Your task to perform on an android device: Show me recent news Image 0: 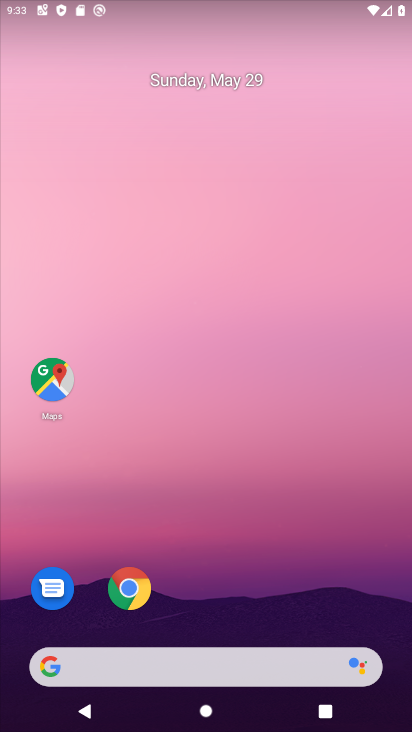
Step 0: click (167, 655)
Your task to perform on an android device: Show me recent news Image 1: 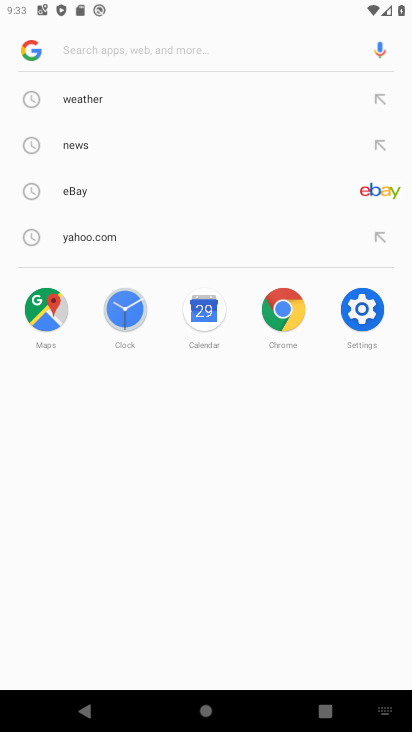
Step 1: click (66, 152)
Your task to perform on an android device: Show me recent news Image 2: 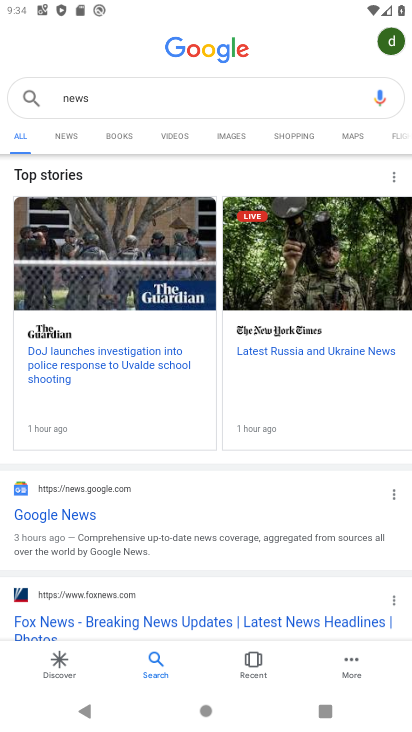
Step 2: task complete